Your task to perform on an android device: Open wifi settings Image 0: 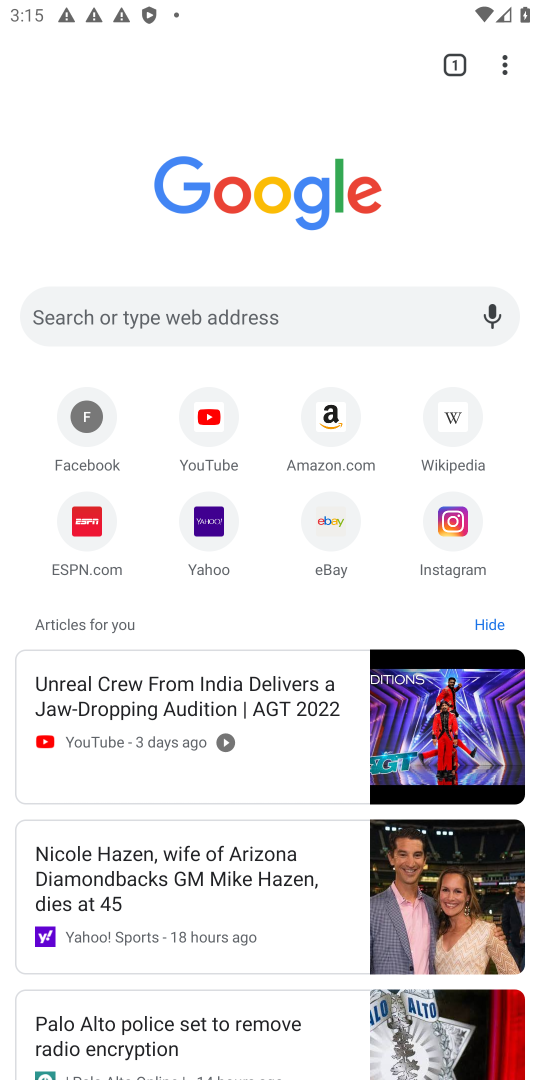
Step 0: press home button
Your task to perform on an android device: Open wifi settings Image 1: 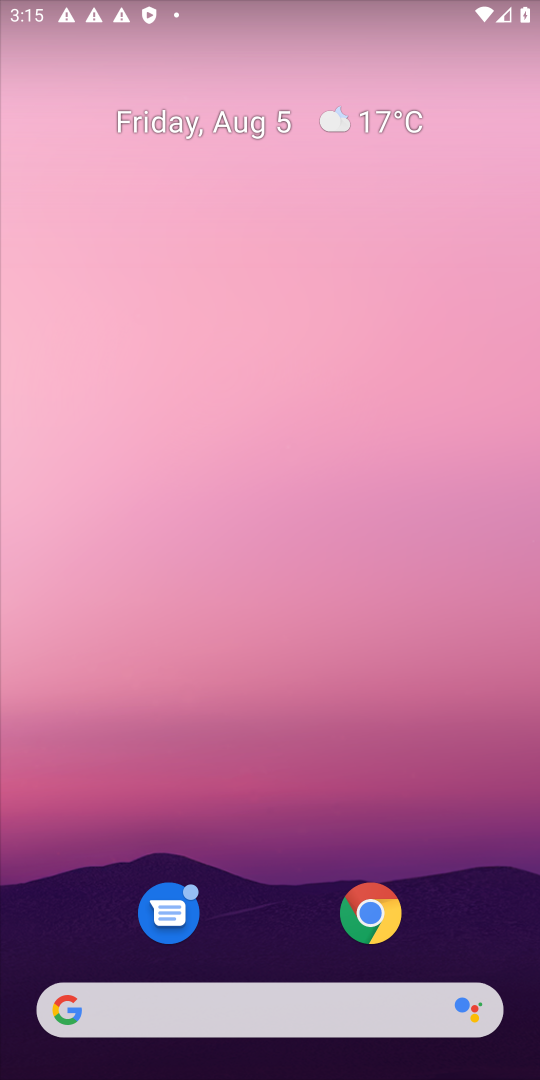
Step 1: drag from (208, 995) to (442, 46)
Your task to perform on an android device: Open wifi settings Image 2: 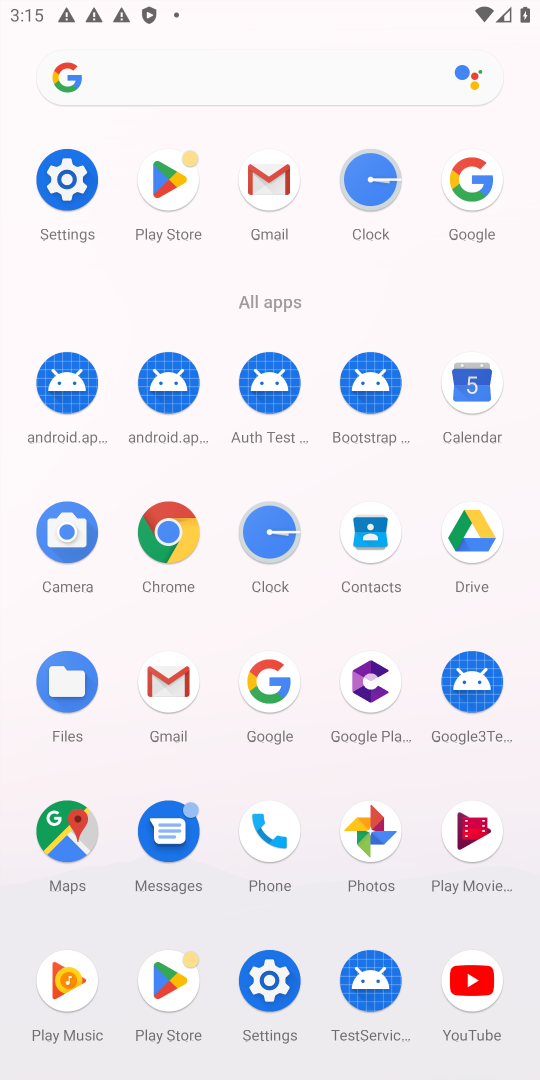
Step 2: click (79, 180)
Your task to perform on an android device: Open wifi settings Image 3: 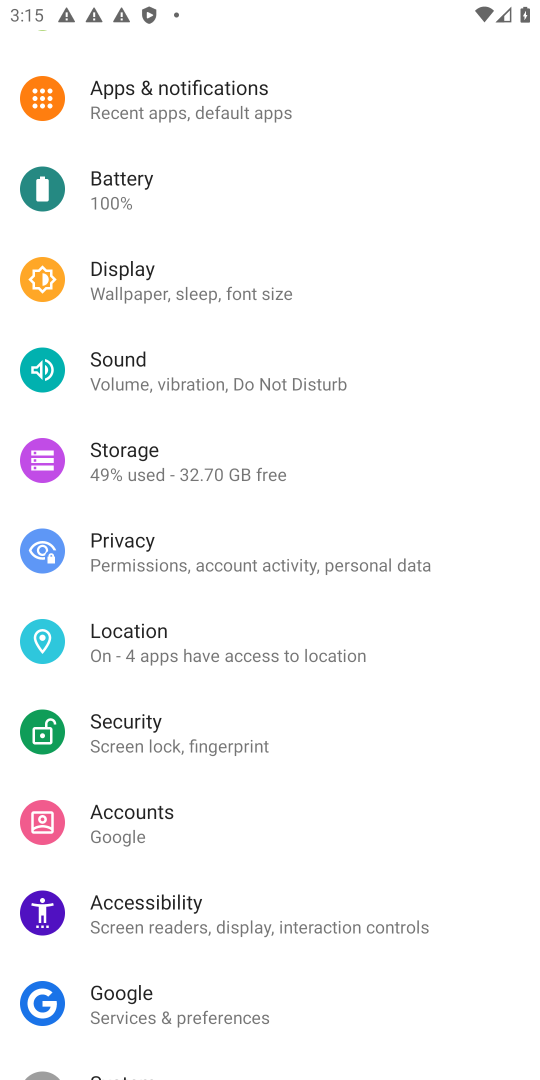
Step 3: drag from (378, 157) to (246, 797)
Your task to perform on an android device: Open wifi settings Image 4: 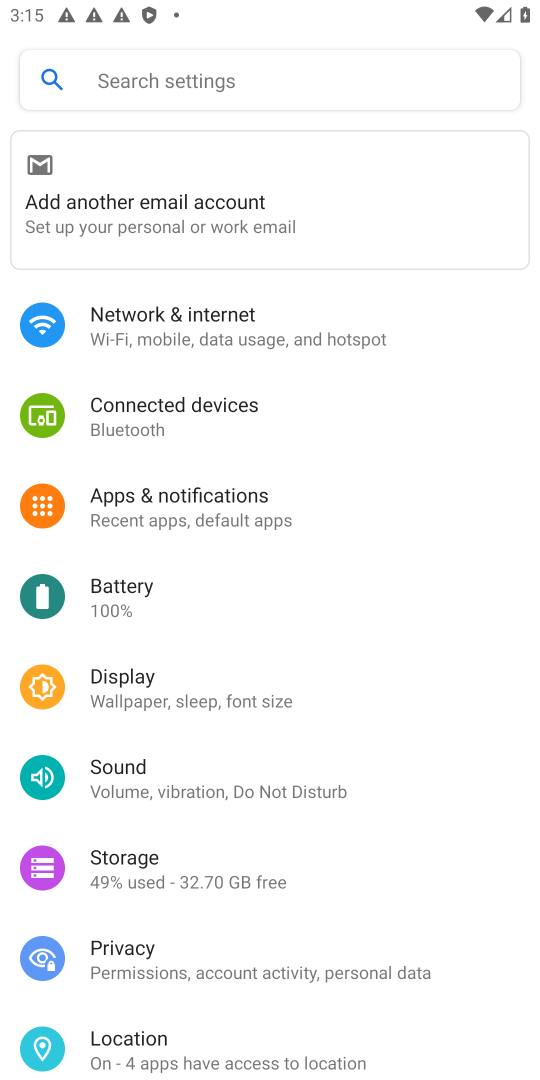
Step 4: click (207, 323)
Your task to perform on an android device: Open wifi settings Image 5: 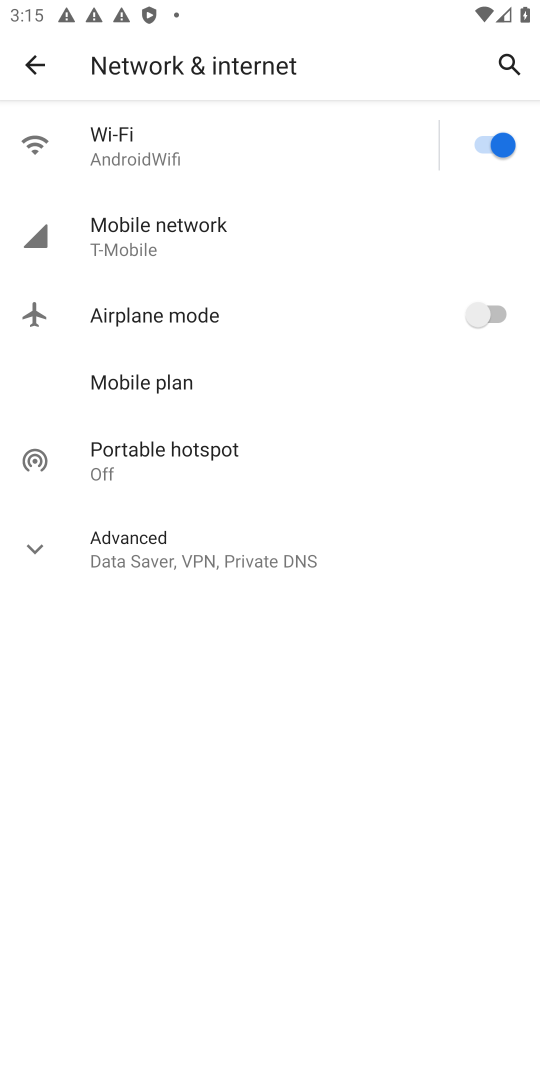
Step 5: click (143, 143)
Your task to perform on an android device: Open wifi settings Image 6: 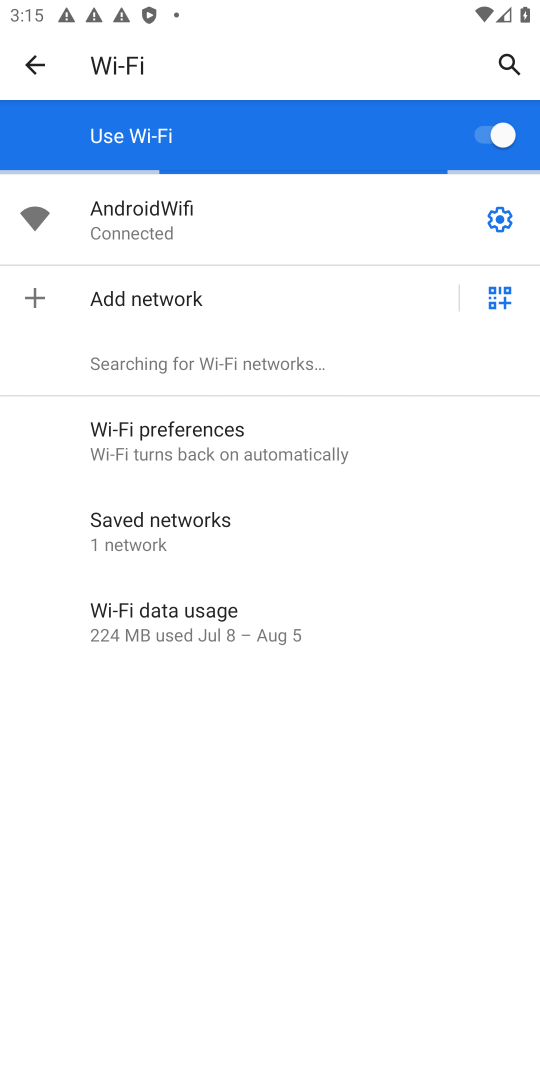
Step 6: task complete